Your task to perform on an android device: set the stopwatch Image 0: 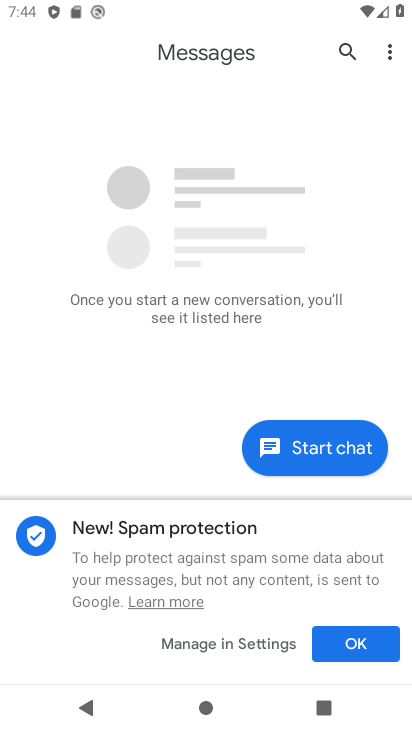
Step 0: press home button
Your task to perform on an android device: set the stopwatch Image 1: 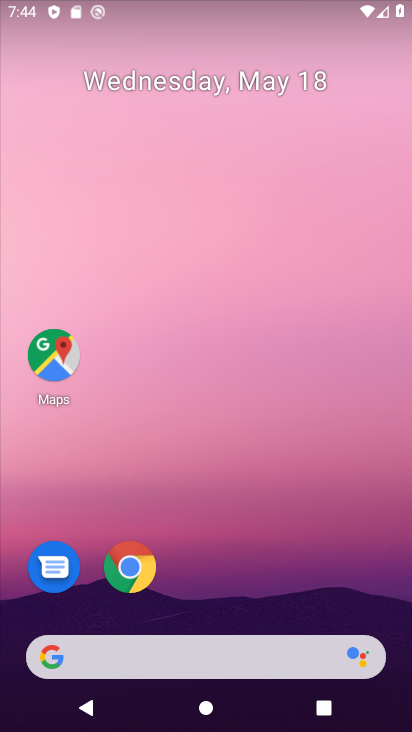
Step 1: drag from (205, 599) to (164, 123)
Your task to perform on an android device: set the stopwatch Image 2: 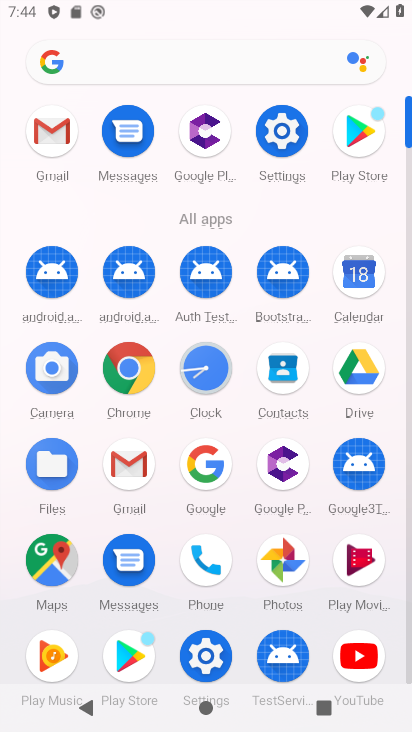
Step 2: click (208, 376)
Your task to perform on an android device: set the stopwatch Image 3: 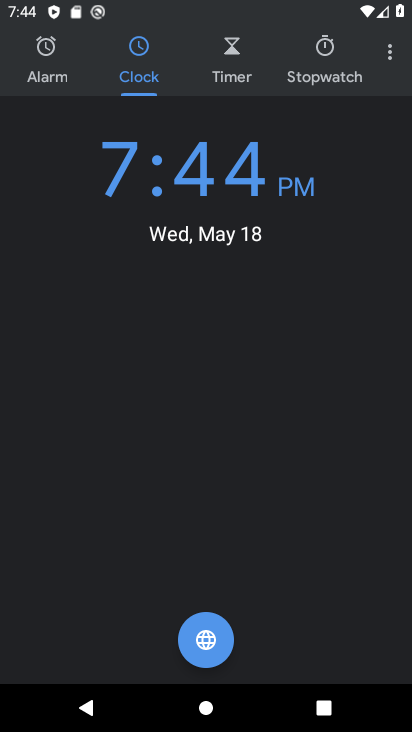
Step 3: click (323, 69)
Your task to perform on an android device: set the stopwatch Image 4: 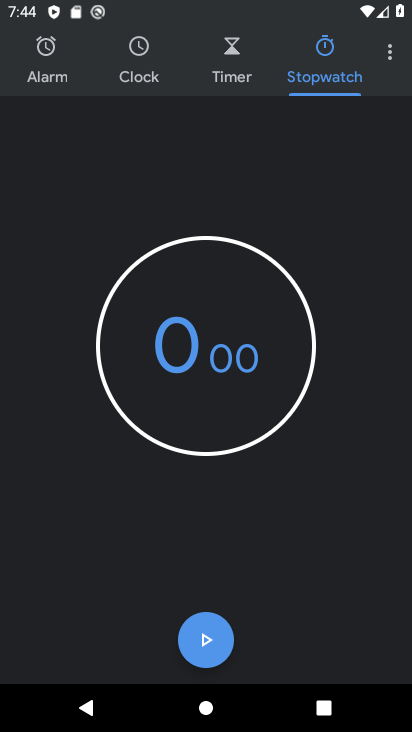
Step 4: click (191, 659)
Your task to perform on an android device: set the stopwatch Image 5: 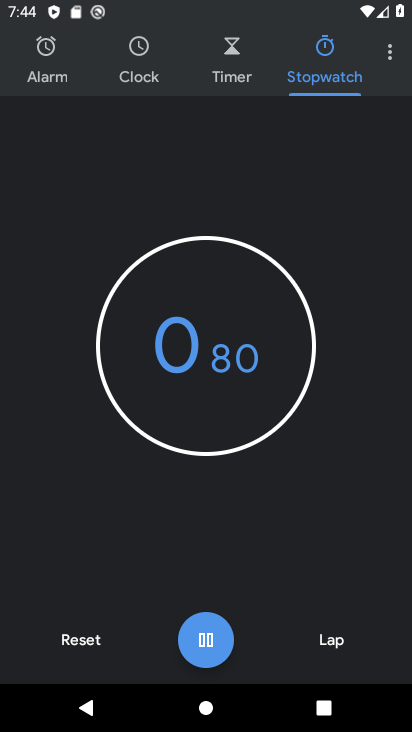
Step 5: click (192, 659)
Your task to perform on an android device: set the stopwatch Image 6: 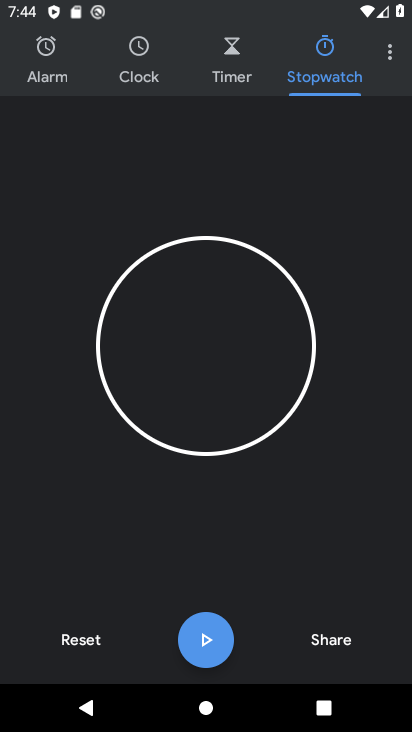
Step 6: task complete